Your task to perform on an android device: Go to wifi settings Image 0: 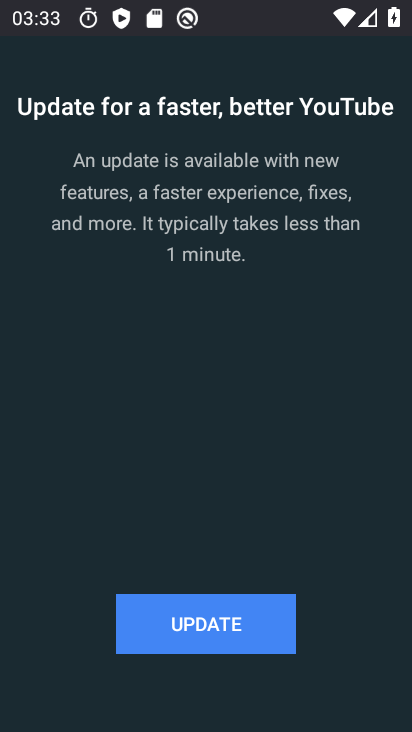
Step 0: press back button
Your task to perform on an android device: Go to wifi settings Image 1: 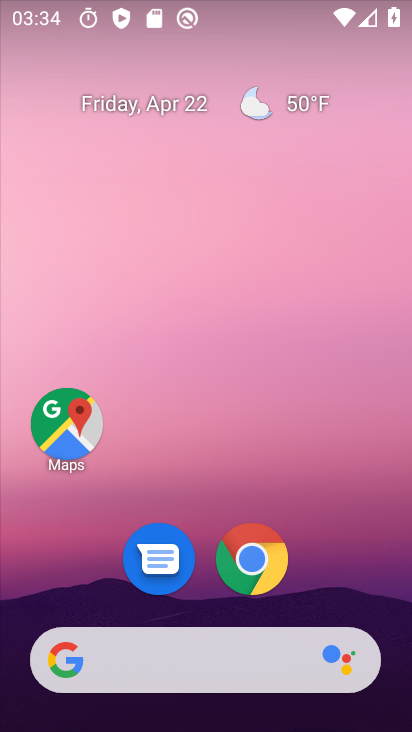
Step 1: drag from (174, 616) to (279, 70)
Your task to perform on an android device: Go to wifi settings Image 2: 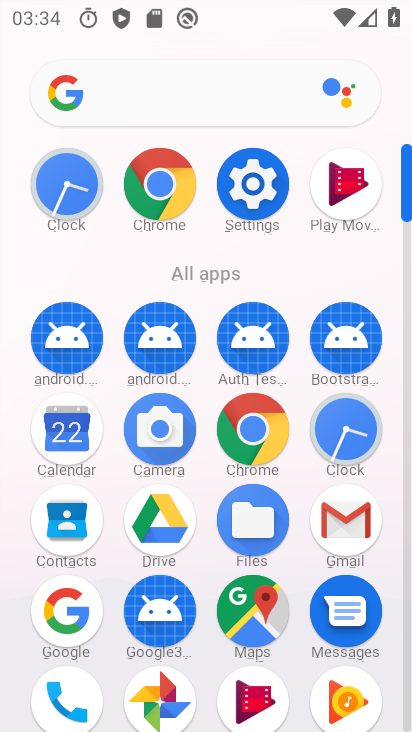
Step 2: click (248, 179)
Your task to perform on an android device: Go to wifi settings Image 3: 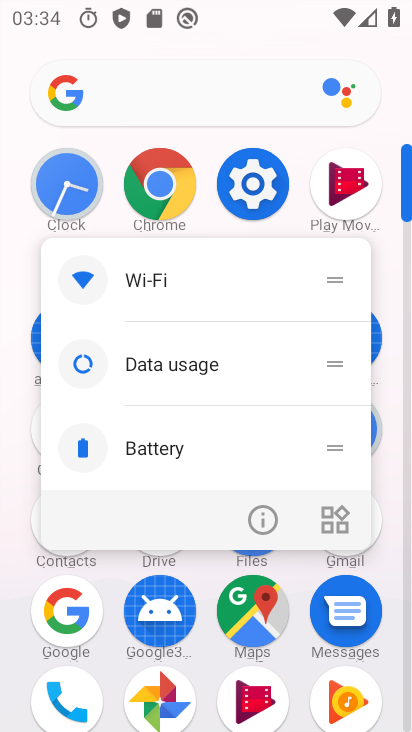
Step 3: click (249, 185)
Your task to perform on an android device: Go to wifi settings Image 4: 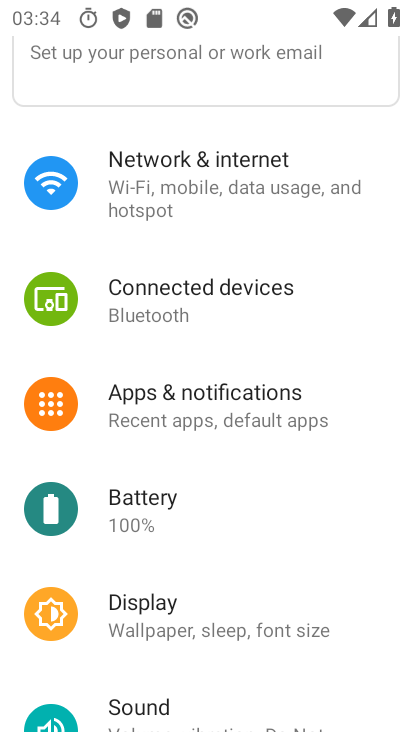
Step 4: click (229, 208)
Your task to perform on an android device: Go to wifi settings Image 5: 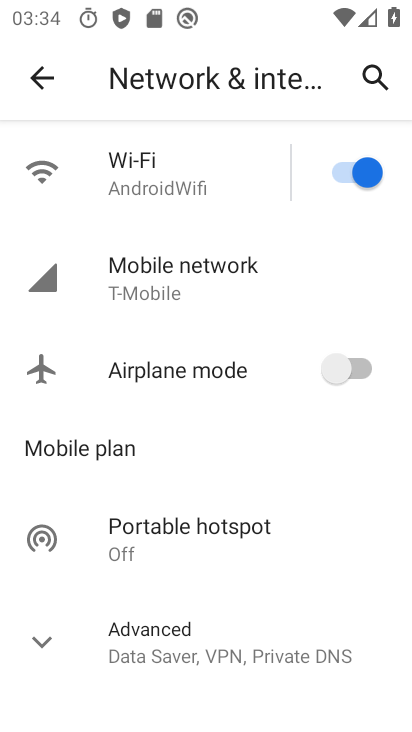
Step 5: click (227, 201)
Your task to perform on an android device: Go to wifi settings Image 6: 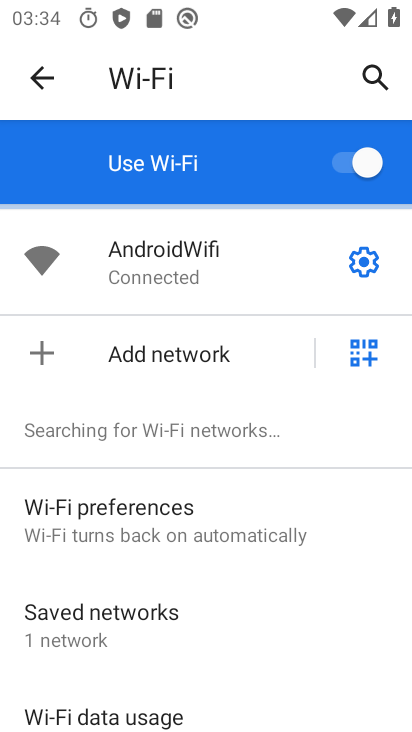
Step 6: task complete